Your task to perform on an android device: open app "Pinterest" (install if not already installed) and enter user name: "Switzerland@yahoo.com" and password: "arithmetics" Image 0: 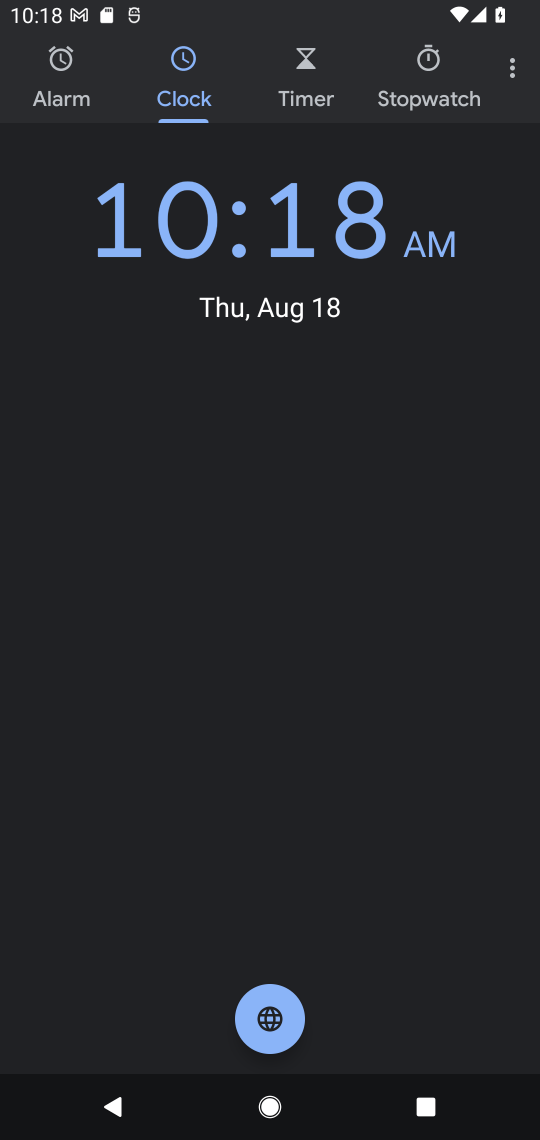
Step 0: task complete